Your task to perform on an android device: Search for Italian restaurants on Maps Image 0: 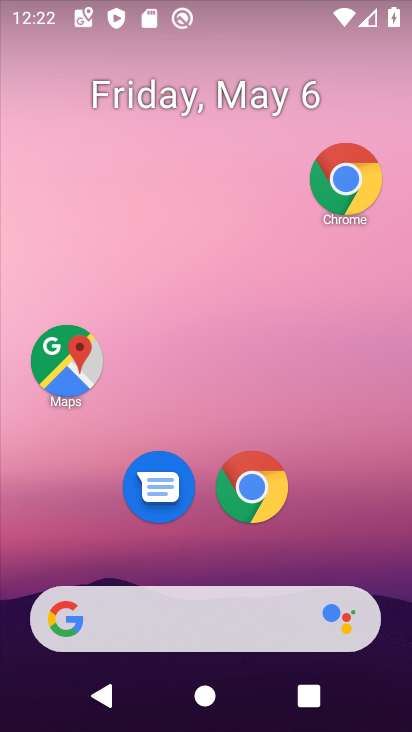
Step 0: click (344, 521)
Your task to perform on an android device: Search for Italian restaurants on Maps Image 1: 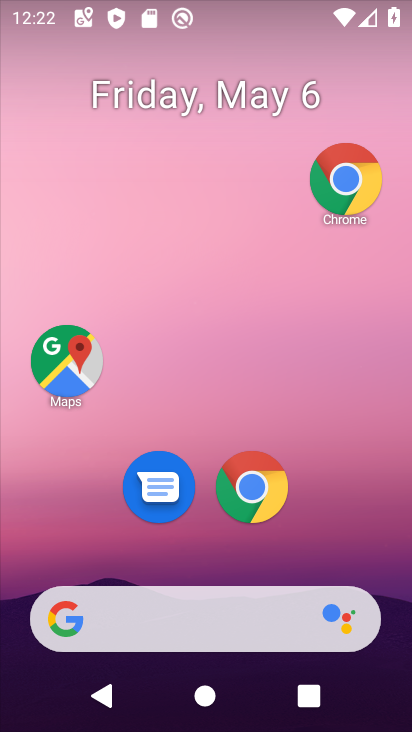
Step 1: click (271, 482)
Your task to perform on an android device: Search for Italian restaurants on Maps Image 2: 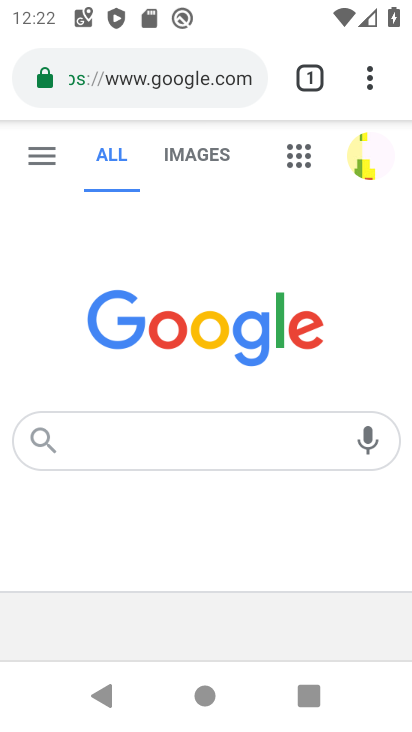
Step 2: press home button
Your task to perform on an android device: Search for Italian restaurants on Maps Image 3: 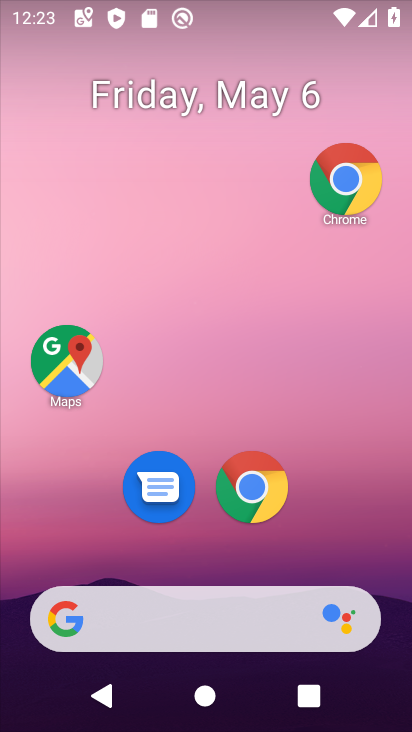
Step 3: click (79, 385)
Your task to perform on an android device: Search for Italian restaurants on Maps Image 4: 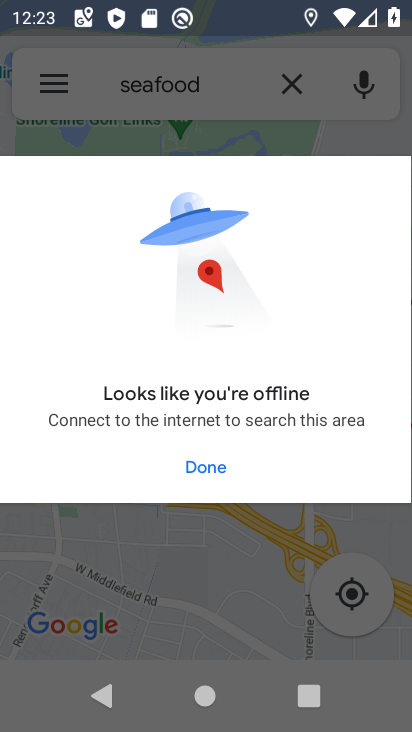
Step 4: click (193, 489)
Your task to perform on an android device: Search for Italian restaurants on Maps Image 5: 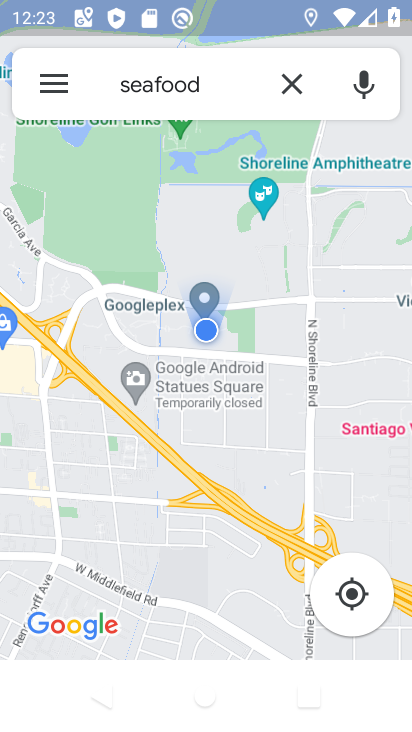
Step 5: click (285, 94)
Your task to perform on an android device: Search for Italian restaurants on Maps Image 6: 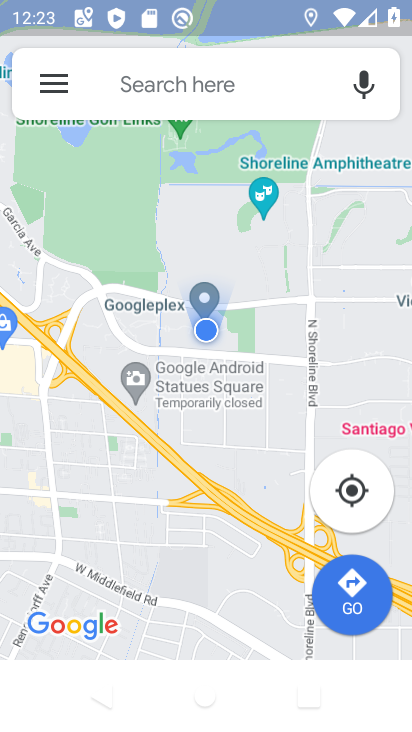
Step 6: click (252, 75)
Your task to perform on an android device: Search for Italian restaurants on Maps Image 7: 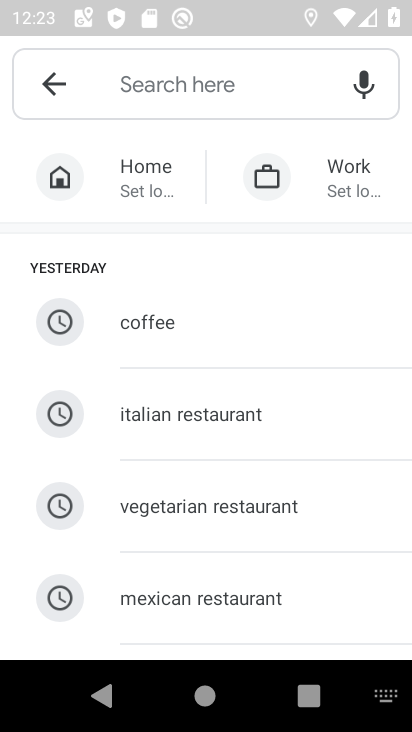
Step 7: click (259, 431)
Your task to perform on an android device: Search for Italian restaurants on Maps Image 8: 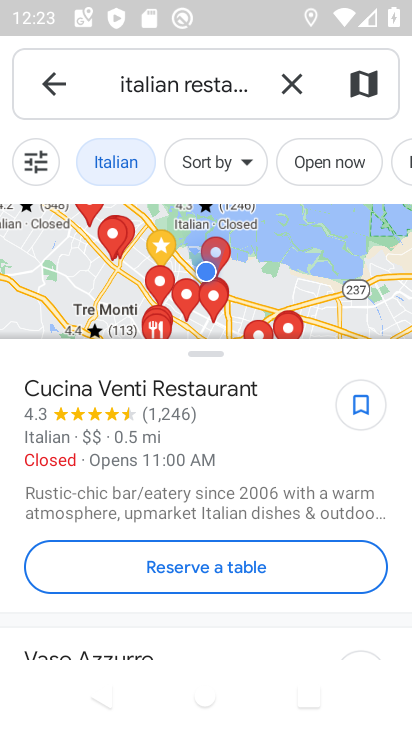
Step 8: task complete